Your task to perform on an android device: Go to Amazon Image 0: 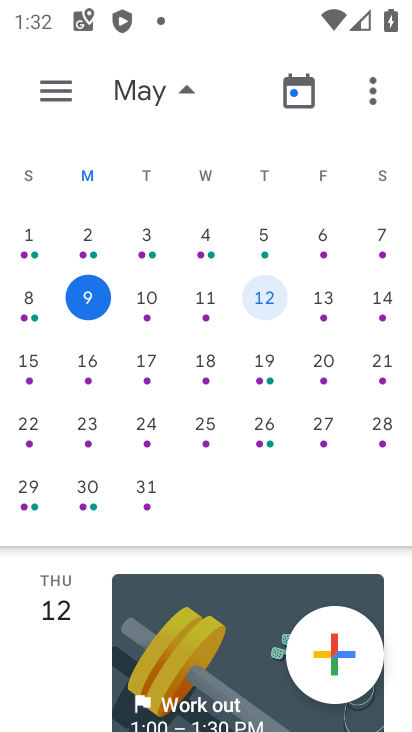
Step 0: task complete